Your task to perform on an android device: Open my contact list Image 0: 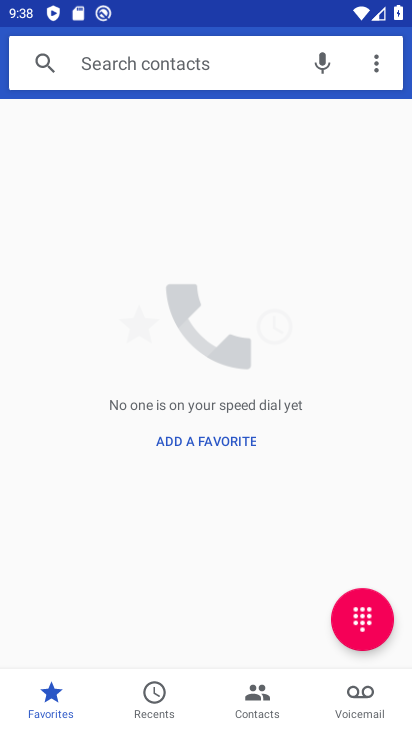
Step 0: press home button
Your task to perform on an android device: Open my contact list Image 1: 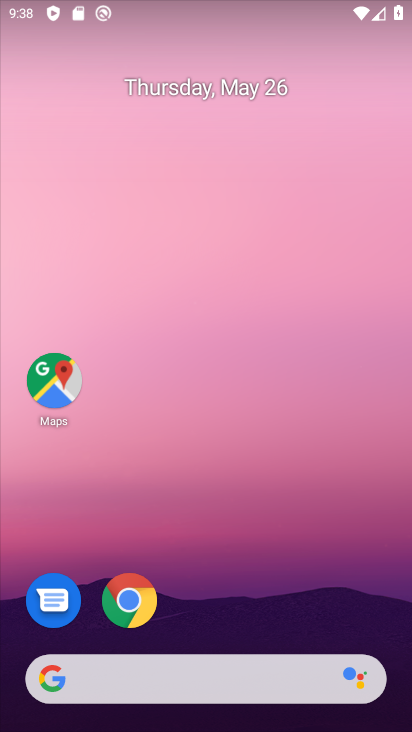
Step 1: drag from (300, 568) to (291, 123)
Your task to perform on an android device: Open my contact list Image 2: 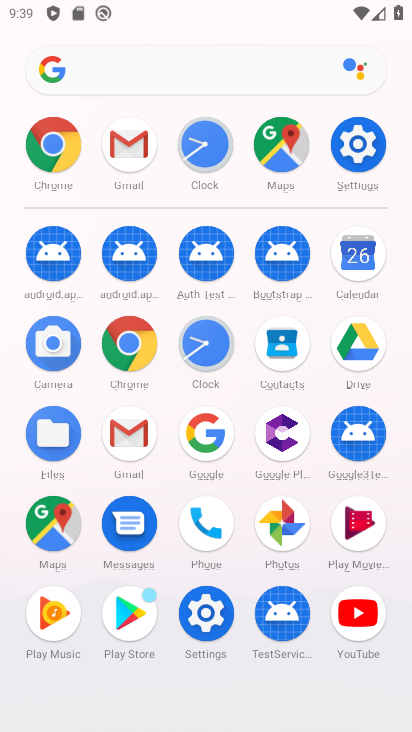
Step 2: click (273, 348)
Your task to perform on an android device: Open my contact list Image 3: 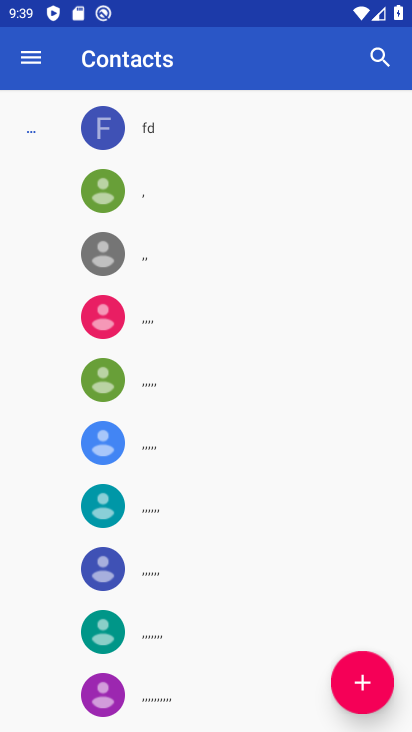
Step 3: task complete